Your task to perform on an android device: stop showing notifications on the lock screen Image 0: 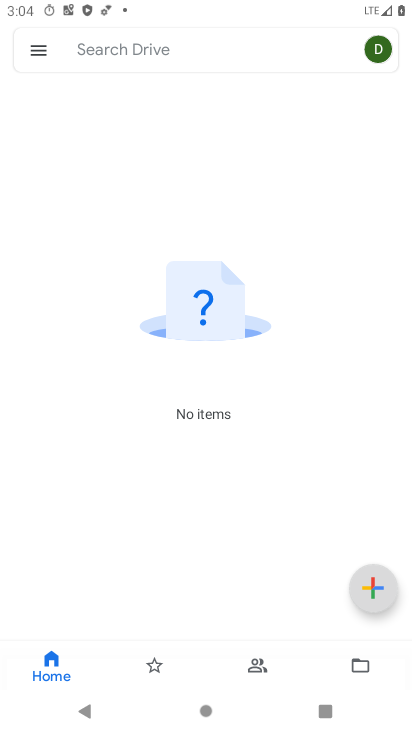
Step 0: press home button
Your task to perform on an android device: stop showing notifications on the lock screen Image 1: 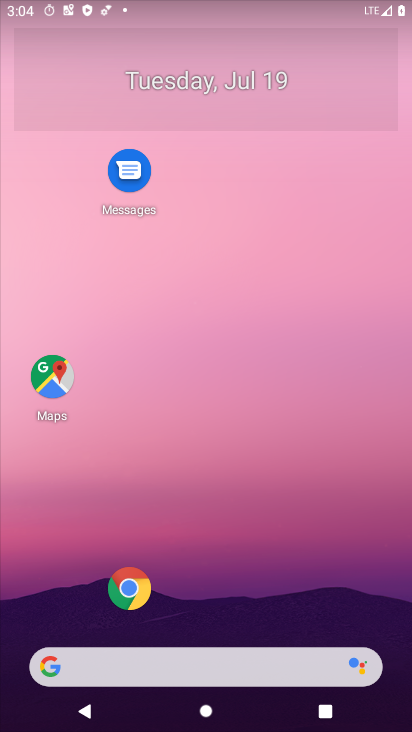
Step 1: drag from (22, 697) to (206, 79)
Your task to perform on an android device: stop showing notifications on the lock screen Image 2: 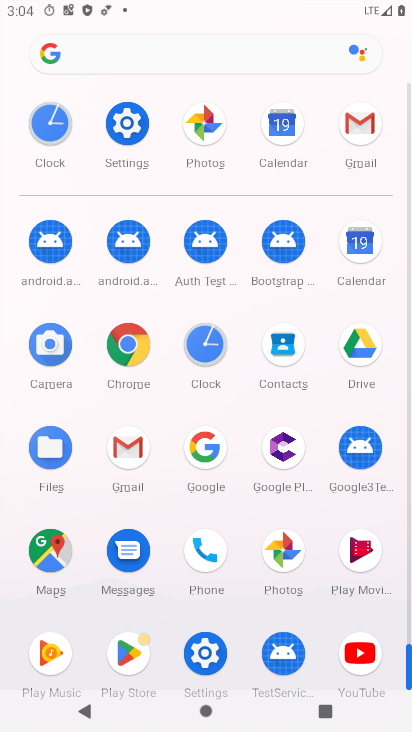
Step 2: click (218, 650)
Your task to perform on an android device: stop showing notifications on the lock screen Image 3: 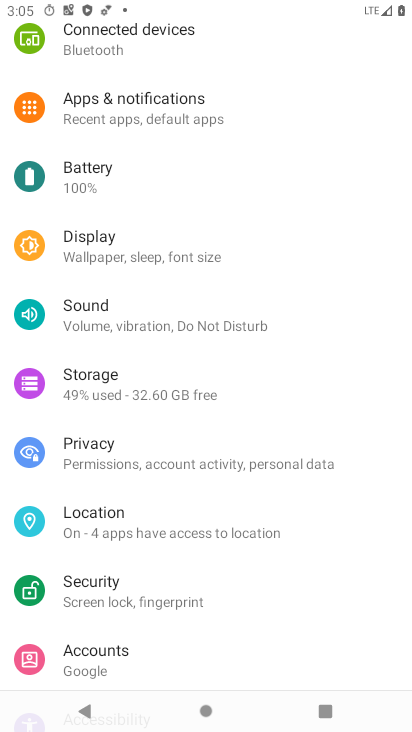
Step 3: click (144, 126)
Your task to perform on an android device: stop showing notifications on the lock screen Image 4: 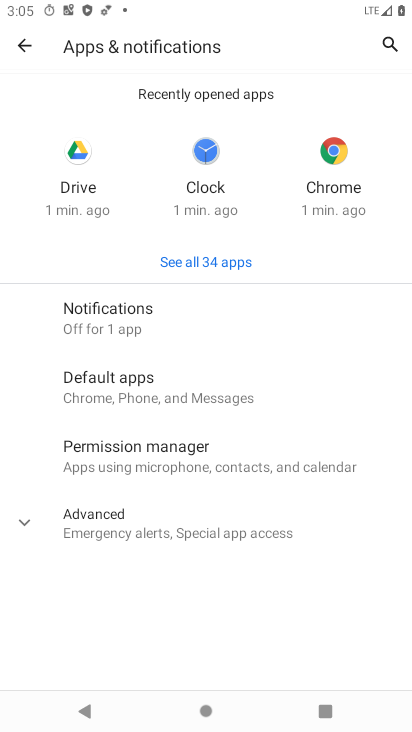
Step 4: click (148, 325)
Your task to perform on an android device: stop showing notifications on the lock screen Image 5: 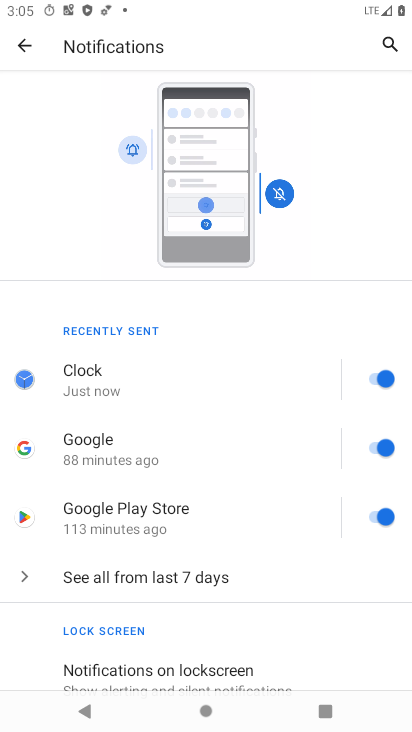
Step 5: drag from (323, 647) to (324, 232)
Your task to perform on an android device: stop showing notifications on the lock screen Image 6: 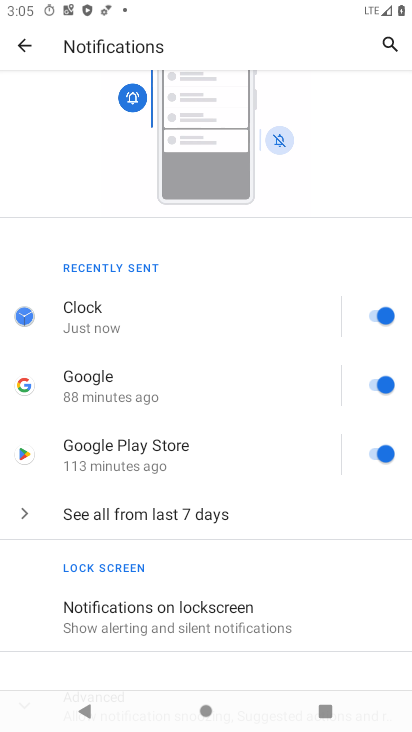
Step 6: click (202, 606)
Your task to perform on an android device: stop showing notifications on the lock screen Image 7: 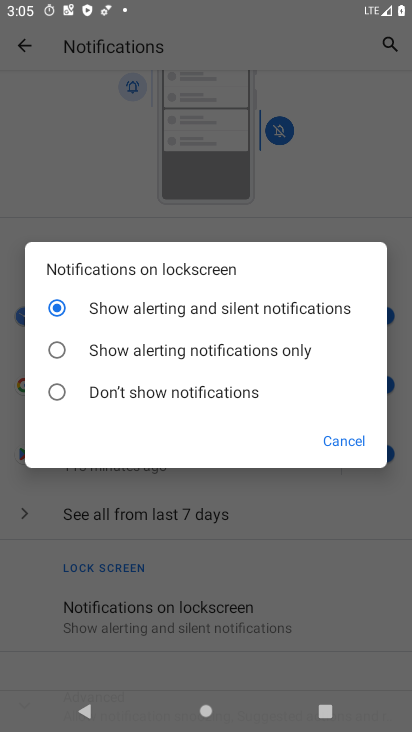
Step 7: click (55, 390)
Your task to perform on an android device: stop showing notifications on the lock screen Image 8: 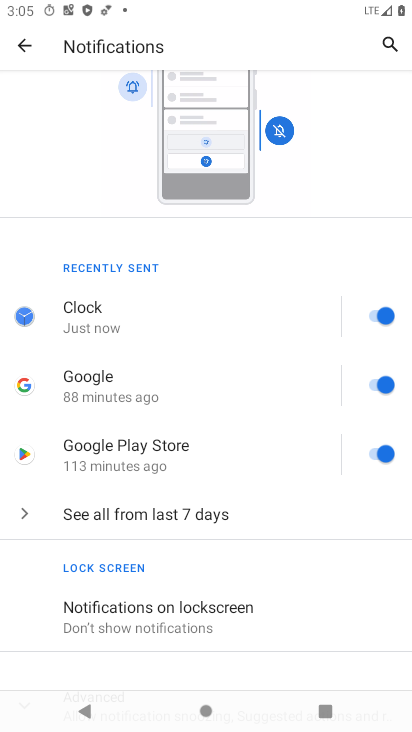
Step 8: task complete